Your task to perform on an android device: uninstall "Flipkart Online Shopping App" Image 0: 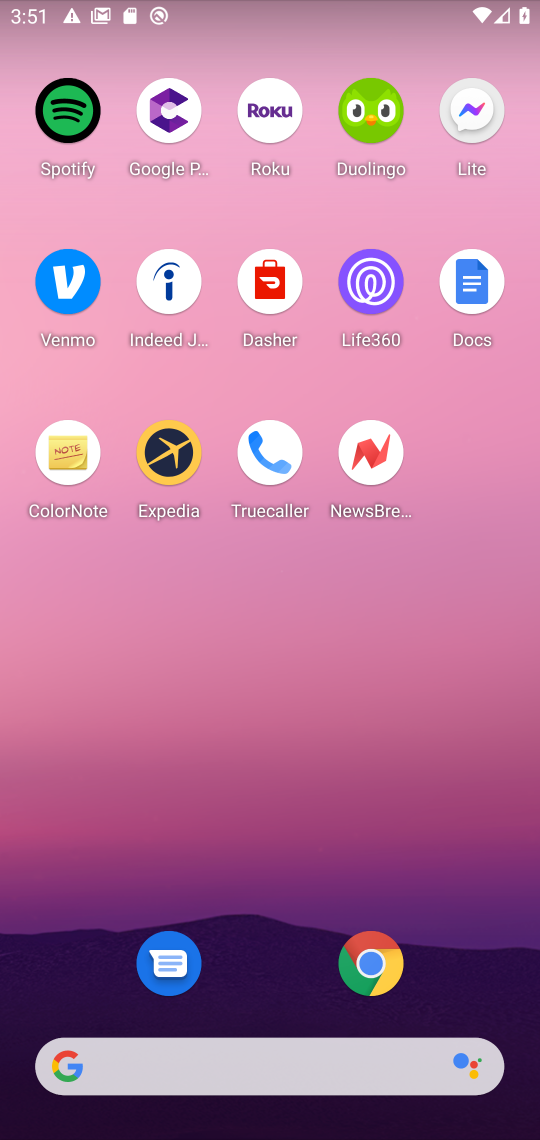
Step 0: drag from (275, 1018) to (127, 353)
Your task to perform on an android device: uninstall "Flipkart Online Shopping App" Image 1: 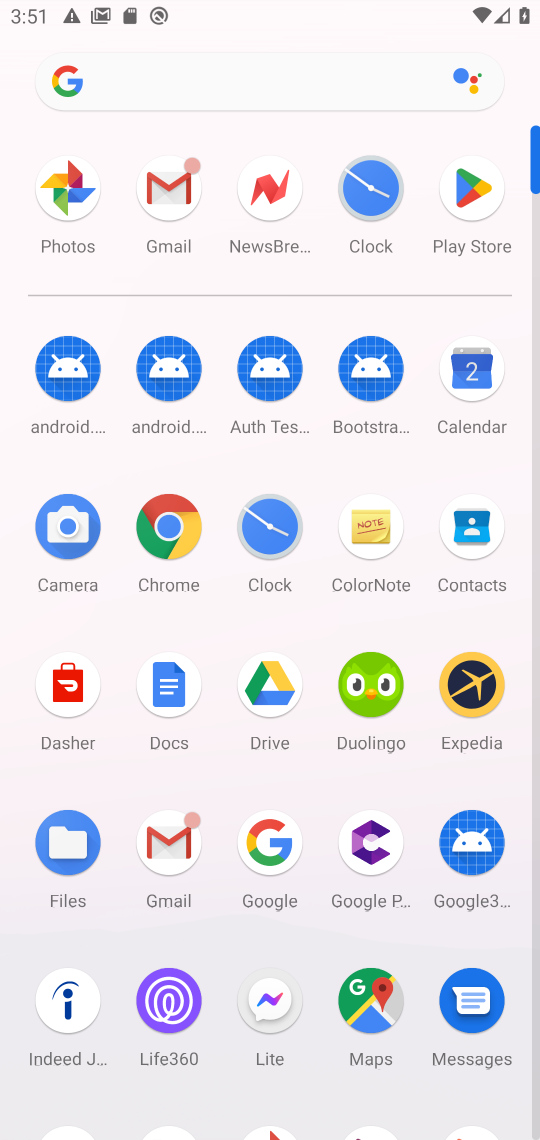
Step 1: click (458, 201)
Your task to perform on an android device: uninstall "Flipkart Online Shopping App" Image 2: 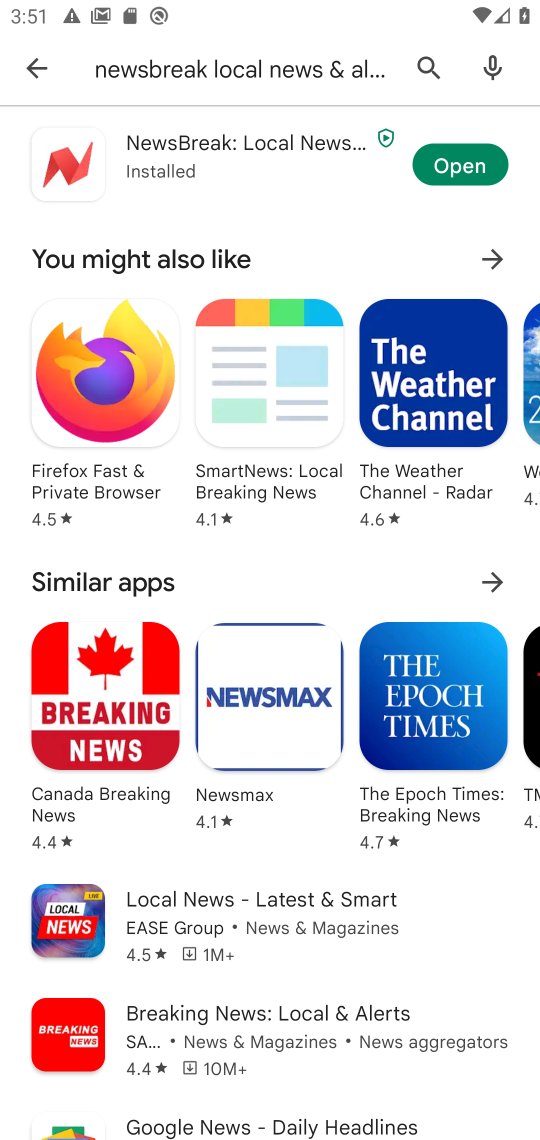
Step 2: click (423, 64)
Your task to perform on an android device: uninstall "Flipkart Online Shopping App" Image 3: 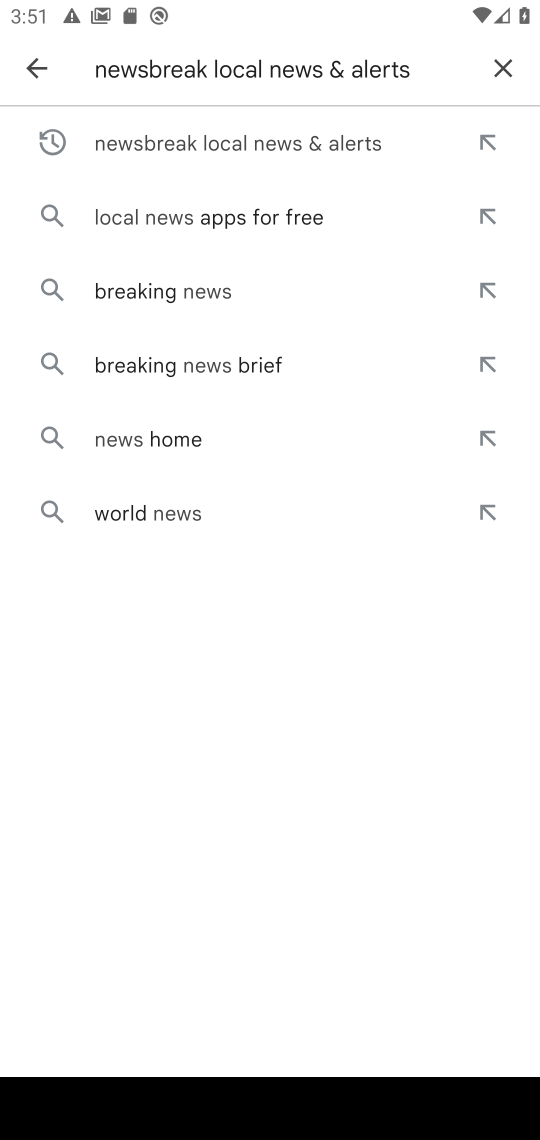
Step 3: click (507, 57)
Your task to perform on an android device: uninstall "Flipkart Online Shopping App" Image 4: 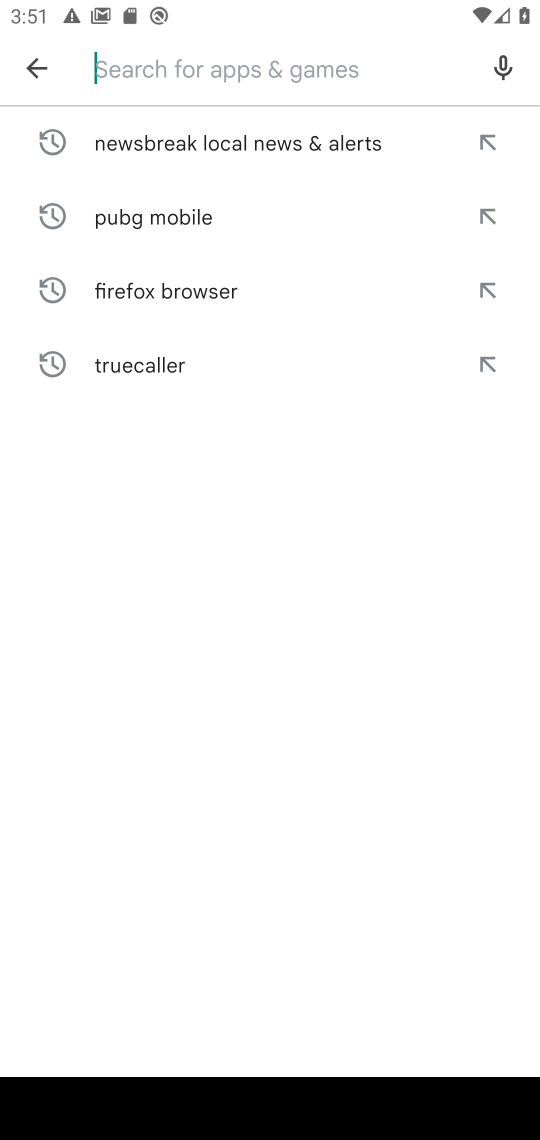
Step 4: click (525, 1102)
Your task to perform on an android device: uninstall "Flipkart Online Shopping App" Image 5: 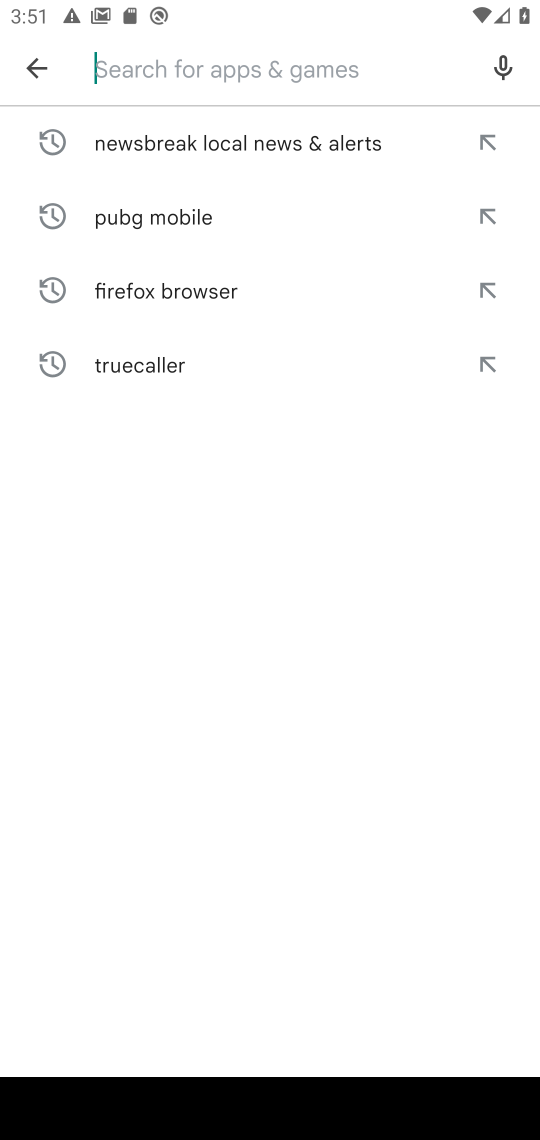
Step 5: click (520, 1117)
Your task to perform on an android device: uninstall "Flipkart Online Shopping App" Image 6: 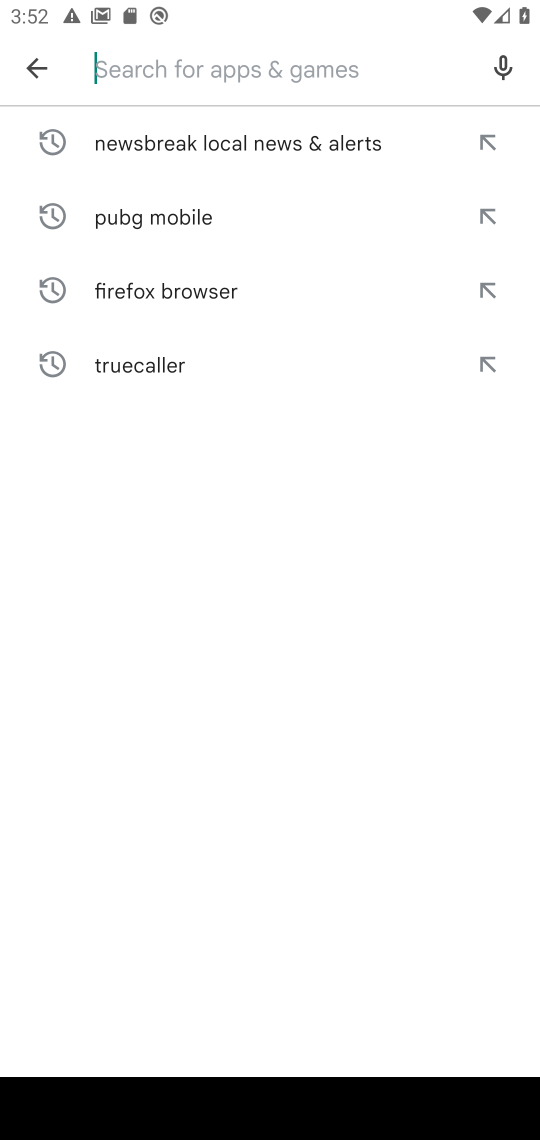
Step 6: type "Flipkart Online Shopping App"
Your task to perform on an android device: uninstall "Flipkart Online Shopping App" Image 7: 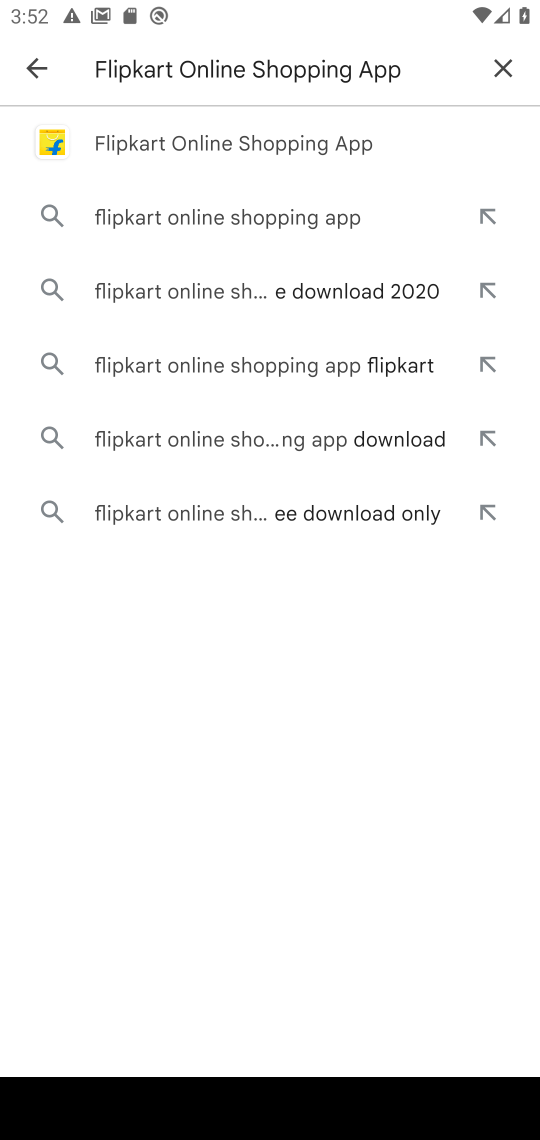
Step 7: click (174, 152)
Your task to perform on an android device: uninstall "Flipkart Online Shopping App" Image 8: 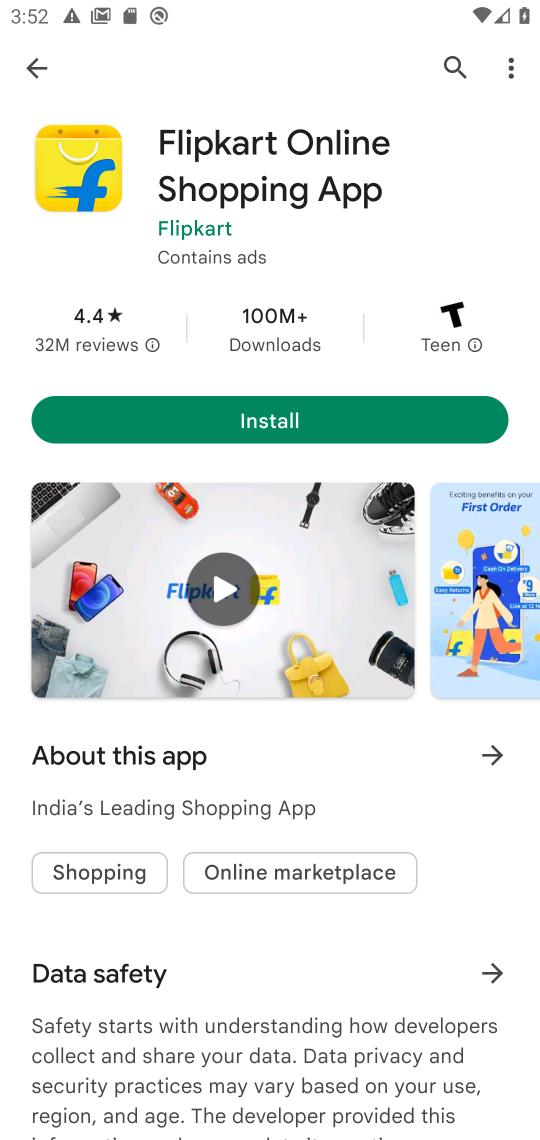
Step 8: task complete